Your task to perform on an android device: Open Chrome and go to settings Image 0: 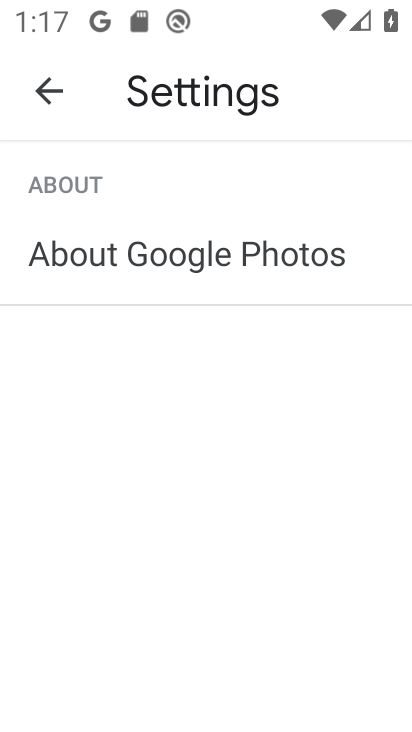
Step 0: press home button
Your task to perform on an android device: Open Chrome and go to settings Image 1: 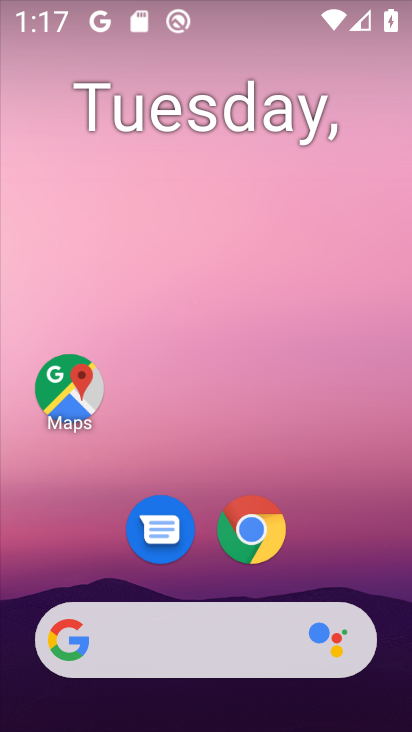
Step 1: click (260, 514)
Your task to perform on an android device: Open Chrome and go to settings Image 2: 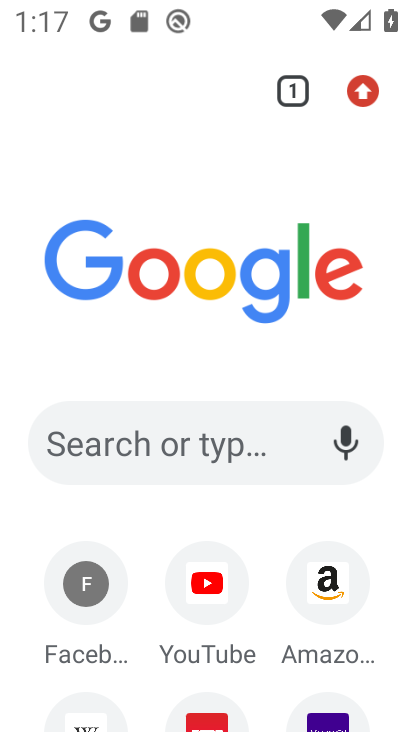
Step 2: click (351, 85)
Your task to perform on an android device: Open Chrome and go to settings Image 3: 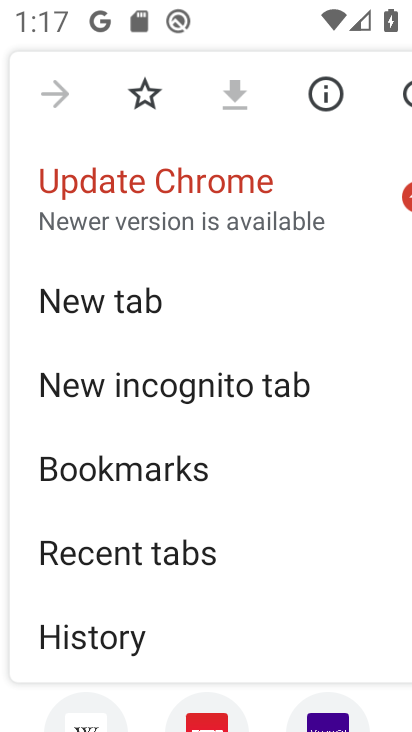
Step 3: click (158, 297)
Your task to perform on an android device: Open Chrome and go to settings Image 4: 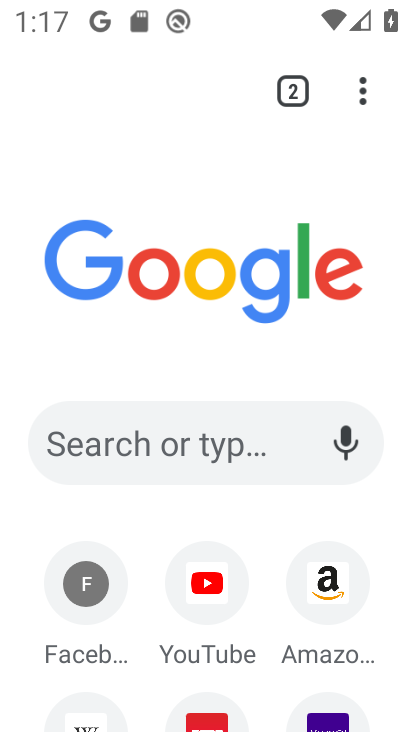
Step 4: click (356, 90)
Your task to perform on an android device: Open Chrome and go to settings Image 5: 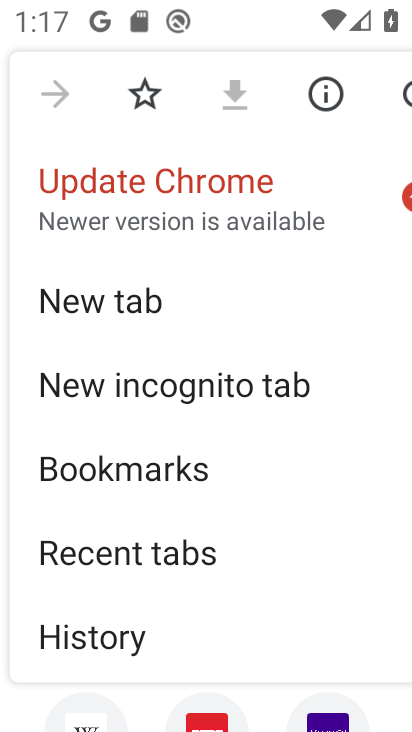
Step 5: drag from (268, 591) to (325, 204)
Your task to perform on an android device: Open Chrome and go to settings Image 6: 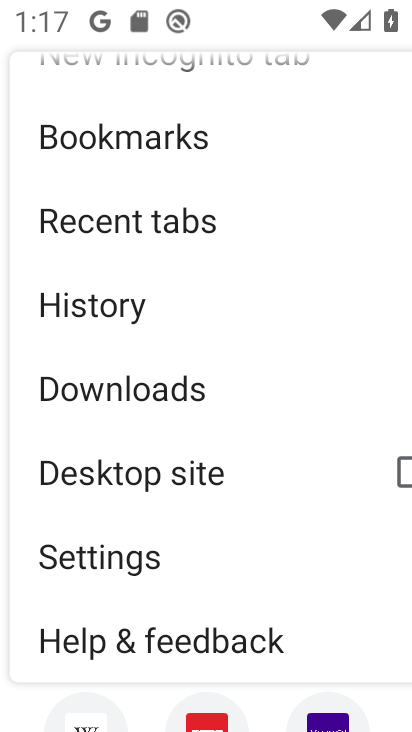
Step 6: click (66, 549)
Your task to perform on an android device: Open Chrome and go to settings Image 7: 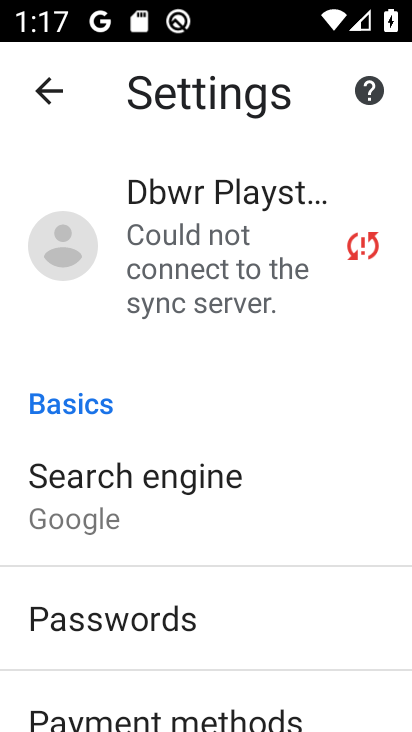
Step 7: task complete